Your task to perform on an android device: Open battery settings Image 0: 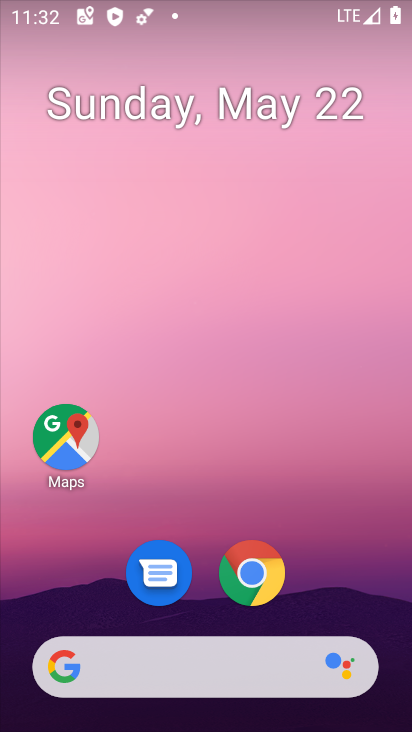
Step 0: drag from (329, 621) to (229, 2)
Your task to perform on an android device: Open battery settings Image 1: 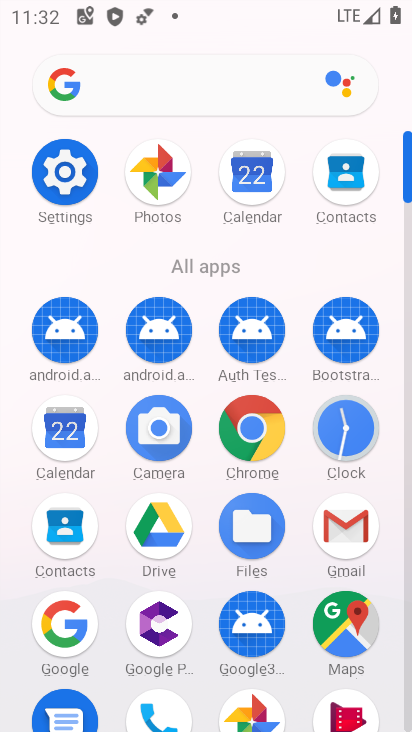
Step 1: click (57, 171)
Your task to perform on an android device: Open battery settings Image 2: 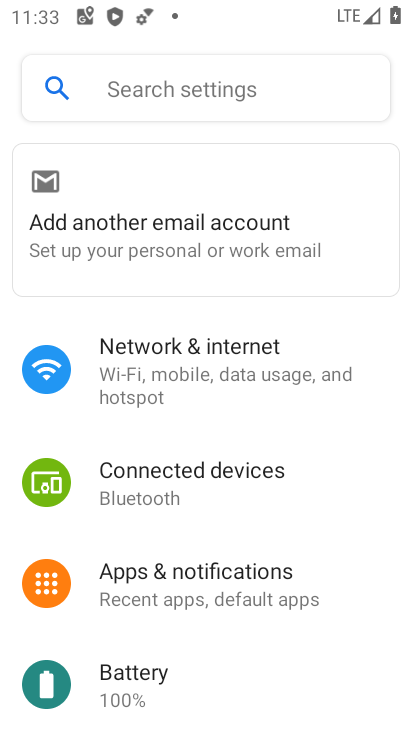
Step 2: click (134, 691)
Your task to perform on an android device: Open battery settings Image 3: 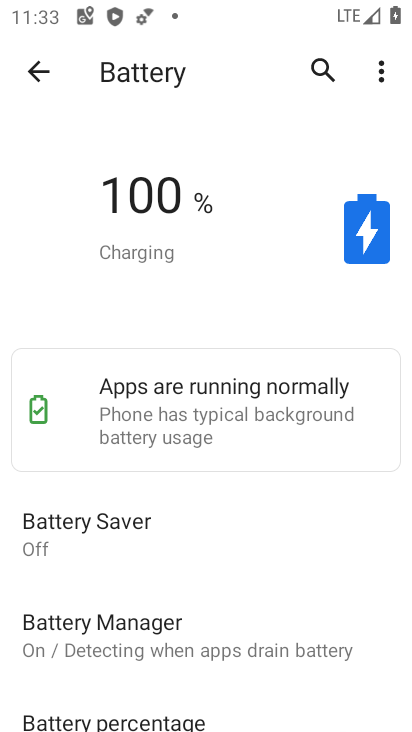
Step 3: task complete